Your task to perform on an android device: Show me popular videos on Youtube Image 0: 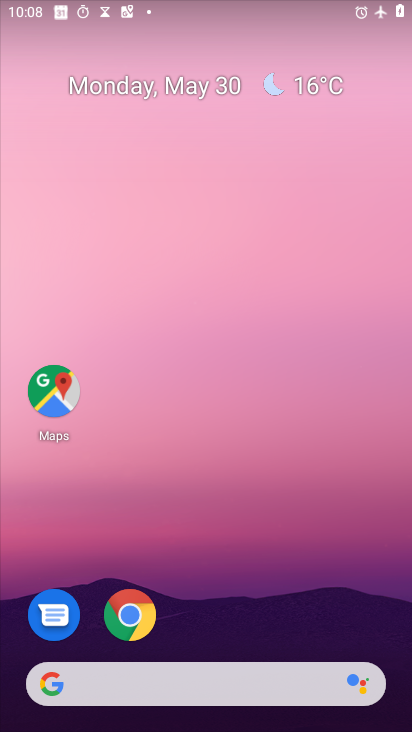
Step 0: drag from (313, 574) to (394, 26)
Your task to perform on an android device: Show me popular videos on Youtube Image 1: 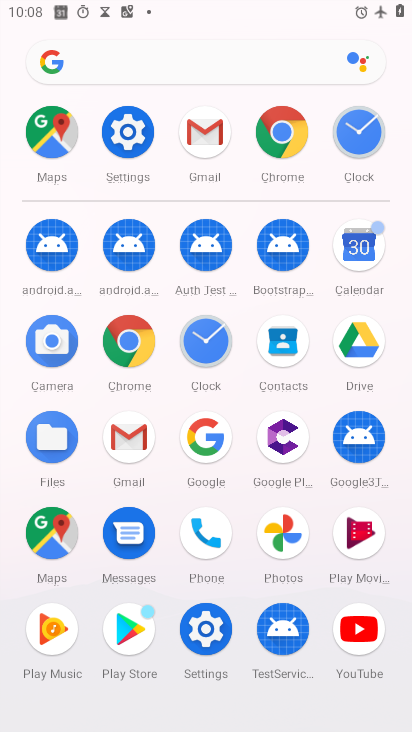
Step 1: click (364, 638)
Your task to perform on an android device: Show me popular videos on Youtube Image 2: 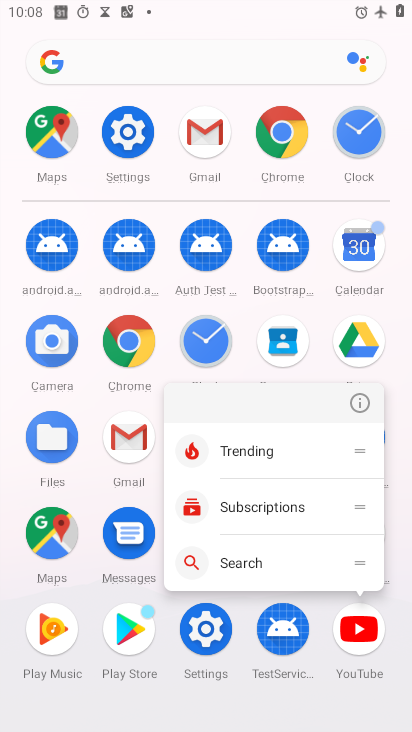
Step 2: click (364, 638)
Your task to perform on an android device: Show me popular videos on Youtube Image 3: 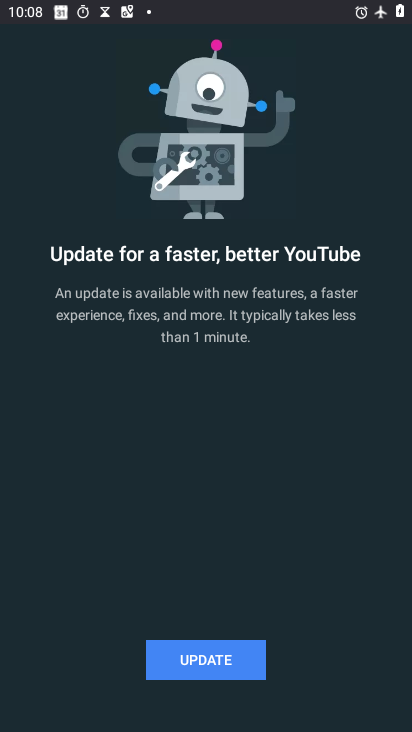
Step 3: click (238, 672)
Your task to perform on an android device: Show me popular videos on Youtube Image 4: 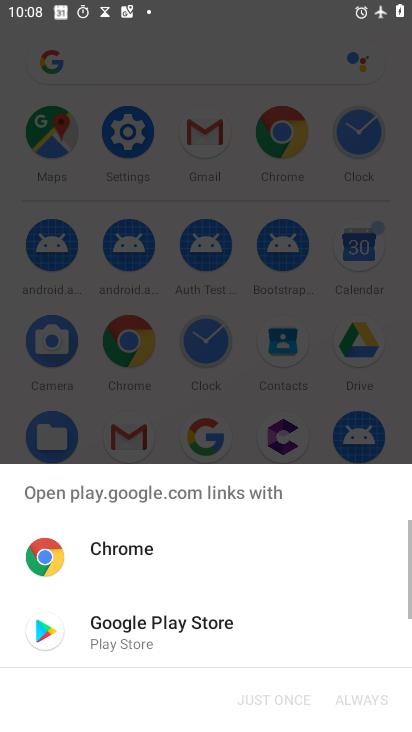
Step 4: click (140, 641)
Your task to perform on an android device: Show me popular videos on Youtube Image 5: 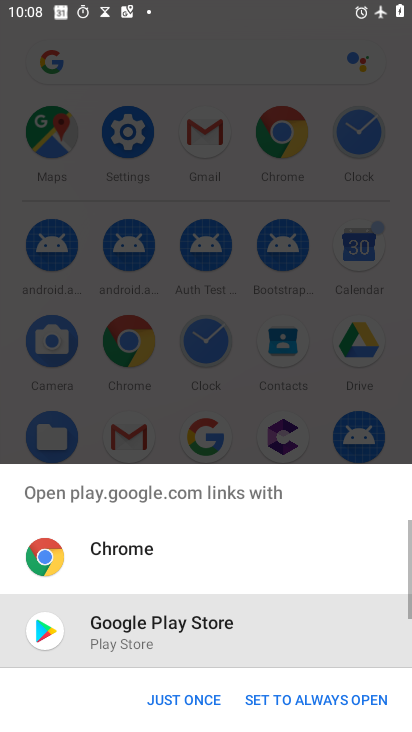
Step 5: click (180, 688)
Your task to perform on an android device: Show me popular videos on Youtube Image 6: 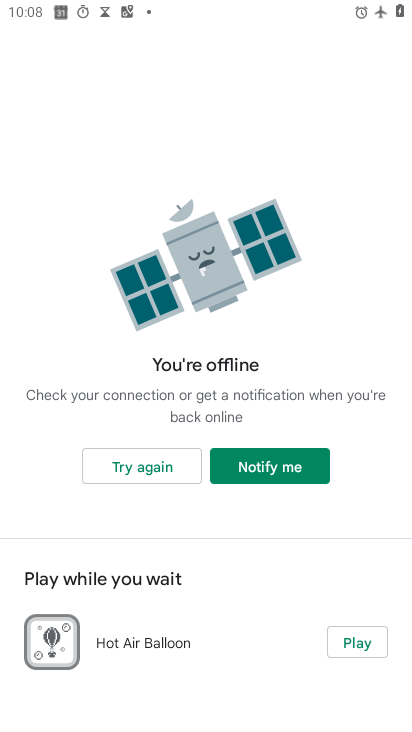
Step 6: click (117, 474)
Your task to perform on an android device: Show me popular videos on Youtube Image 7: 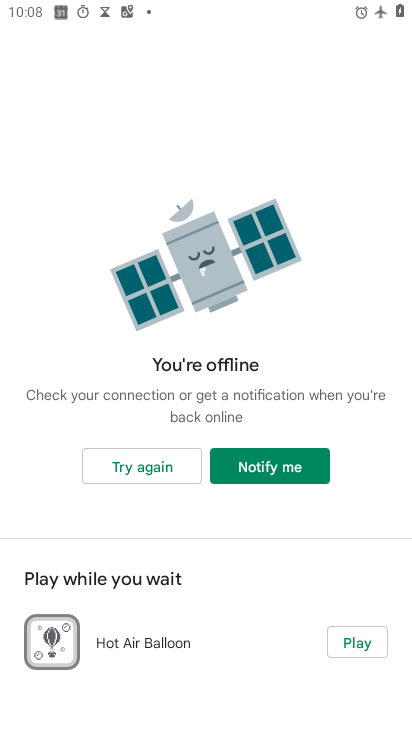
Step 7: task complete